Your task to perform on an android device: Open the web browser Image 0: 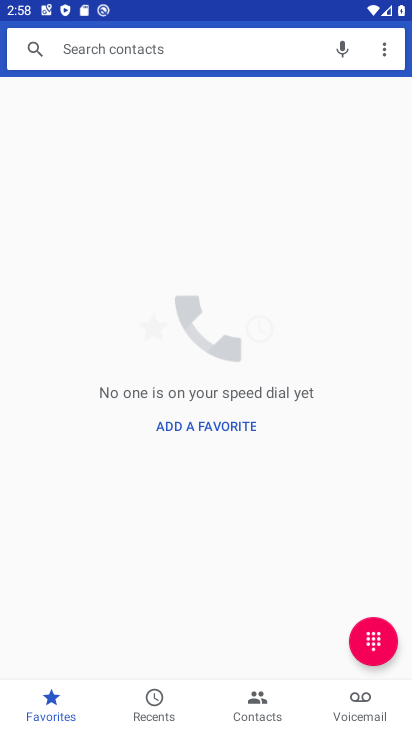
Step 0: drag from (195, 584) to (168, 272)
Your task to perform on an android device: Open the web browser Image 1: 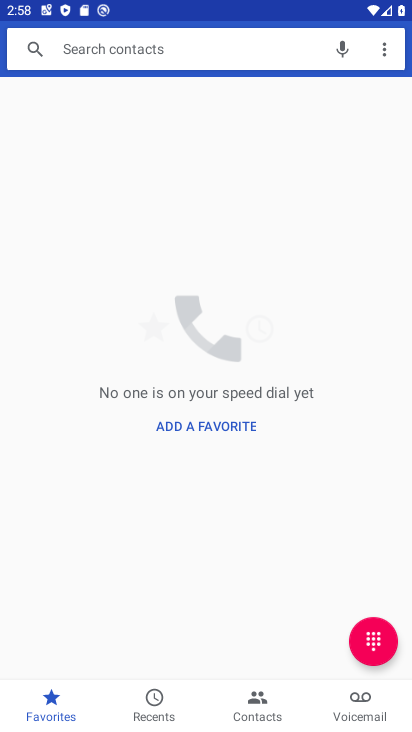
Step 1: press home button
Your task to perform on an android device: Open the web browser Image 2: 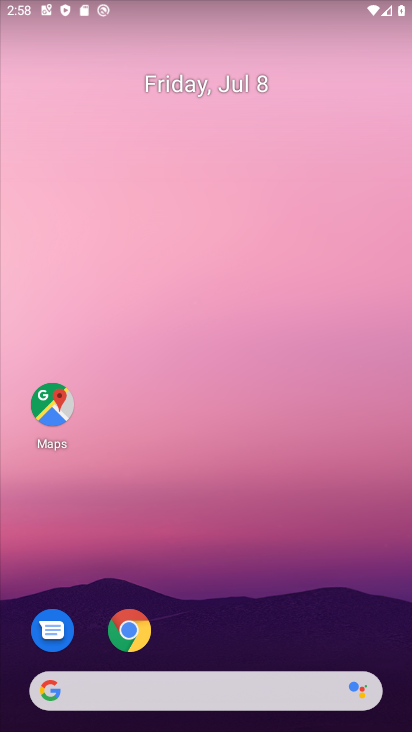
Step 2: click (125, 630)
Your task to perform on an android device: Open the web browser Image 3: 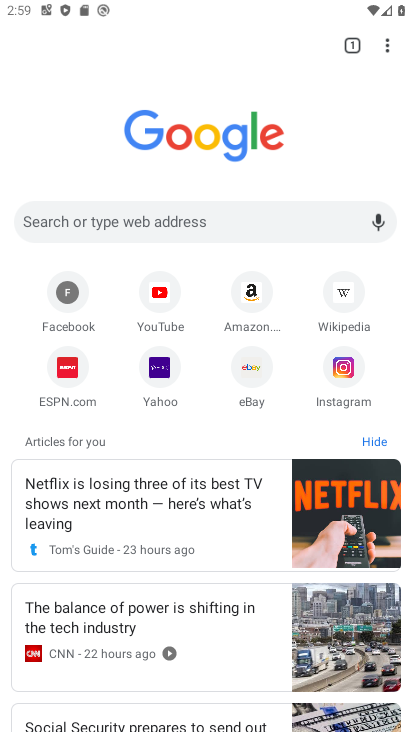
Step 3: click (170, 220)
Your task to perform on an android device: Open the web browser Image 4: 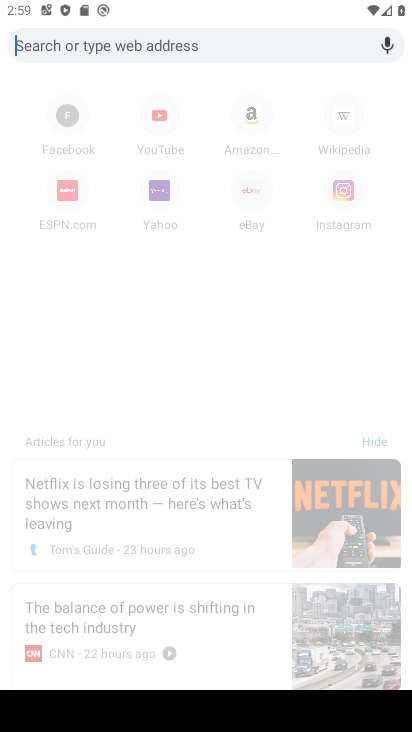
Step 4: type "web browser"
Your task to perform on an android device: Open the web browser Image 5: 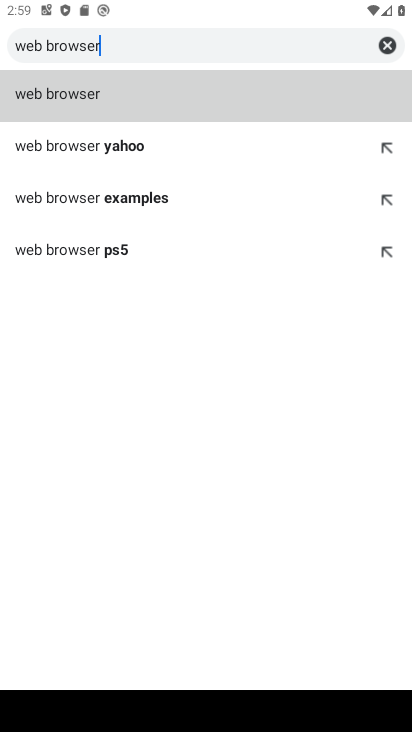
Step 5: click (73, 99)
Your task to perform on an android device: Open the web browser Image 6: 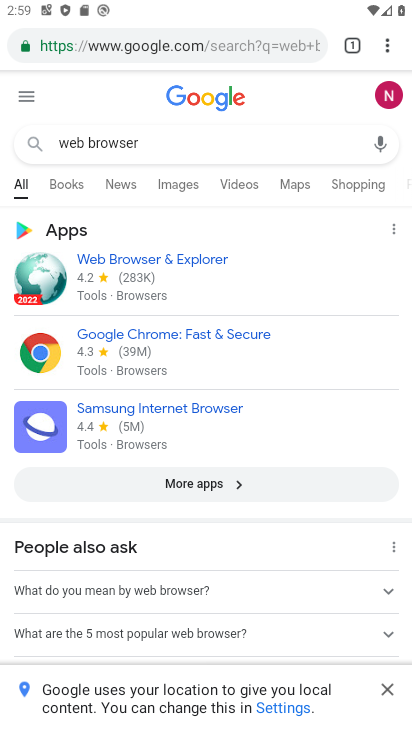
Step 6: task complete